Your task to perform on an android device: Go to ESPN.com Image 0: 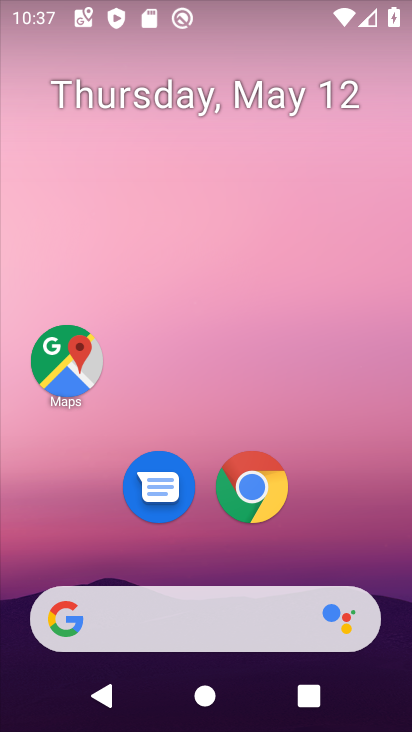
Step 0: click (258, 484)
Your task to perform on an android device: Go to ESPN.com Image 1: 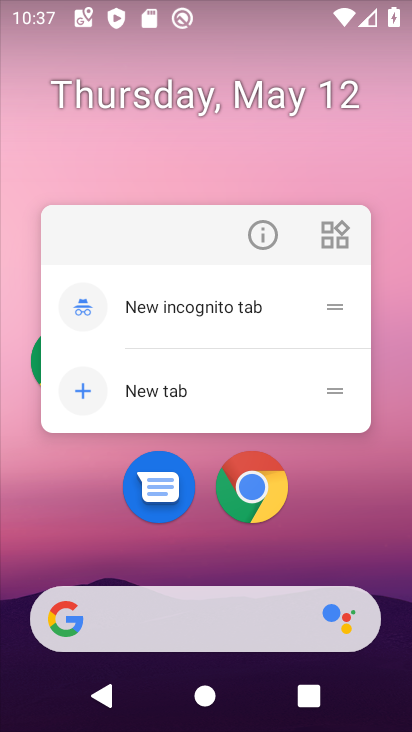
Step 1: click (254, 481)
Your task to perform on an android device: Go to ESPN.com Image 2: 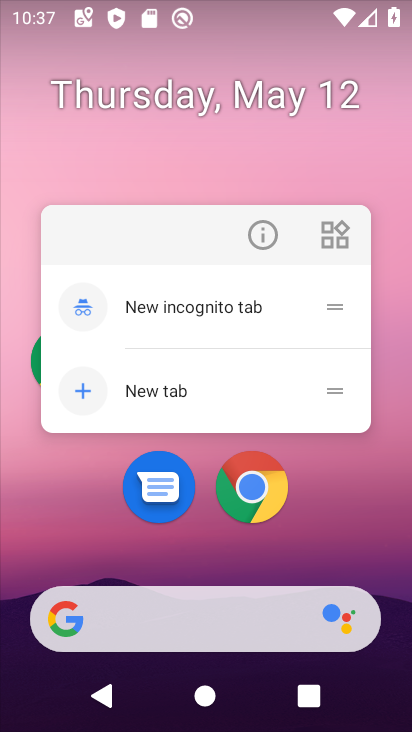
Step 2: click (253, 480)
Your task to perform on an android device: Go to ESPN.com Image 3: 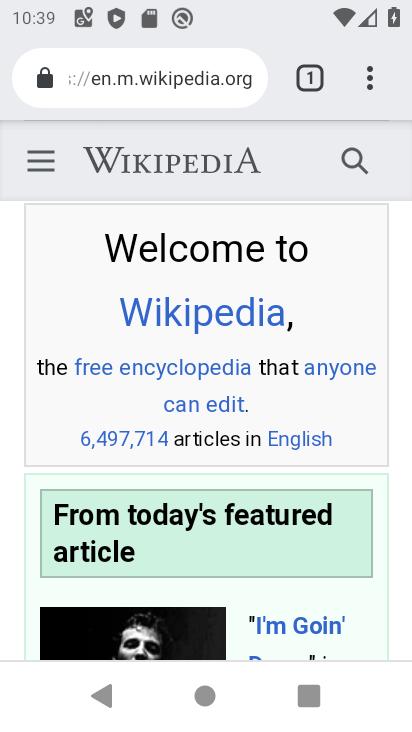
Step 3: click (294, 76)
Your task to perform on an android device: Go to ESPN.com Image 4: 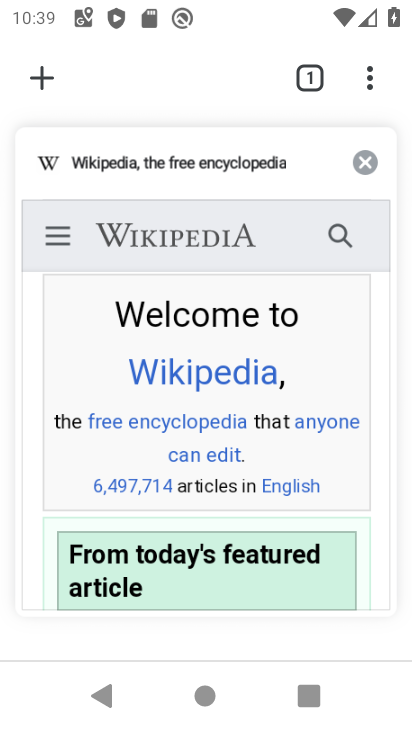
Step 4: click (31, 70)
Your task to perform on an android device: Go to ESPN.com Image 5: 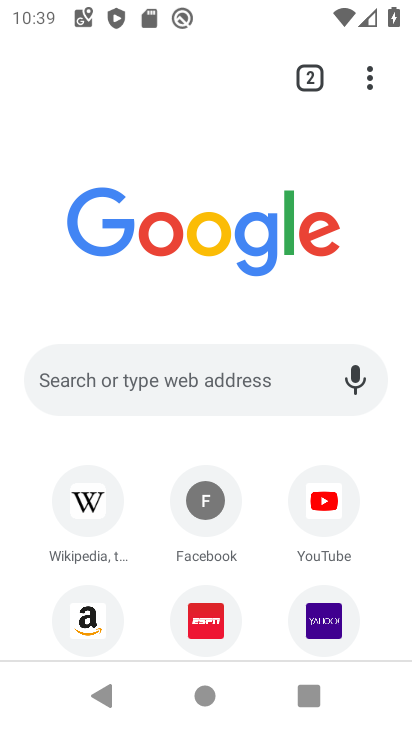
Step 5: drag from (63, 607) to (310, 194)
Your task to perform on an android device: Go to ESPN.com Image 6: 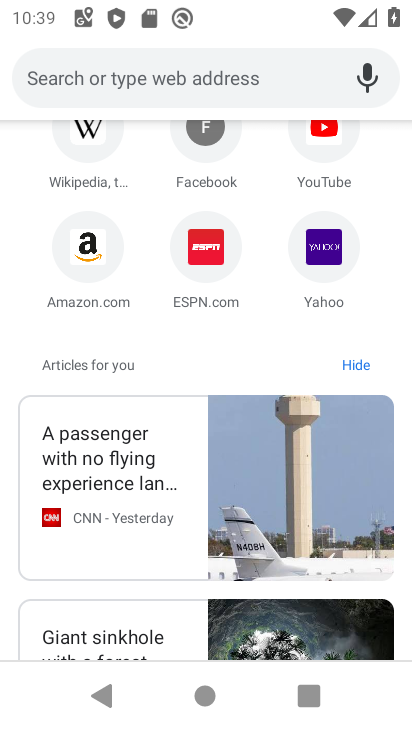
Step 6: click (221, 74)
Your task to perform on an android device: Go to ESPN.com Image 7: 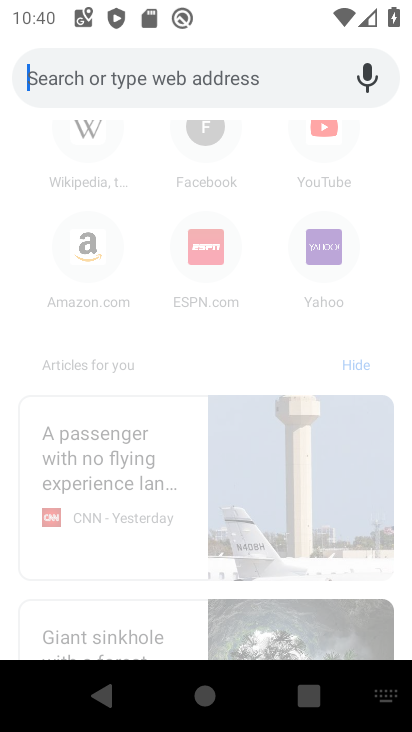
Step 7: type " ESPN.com"
Your task to perform on an android device: Go to ESPN.com Image 8: 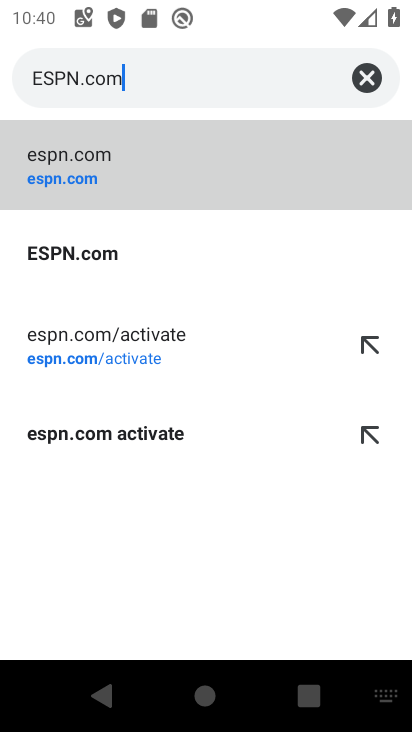
Step 8: click (62, 232)
Your task to perform on an android device: Go to ESPN.com Image 9: 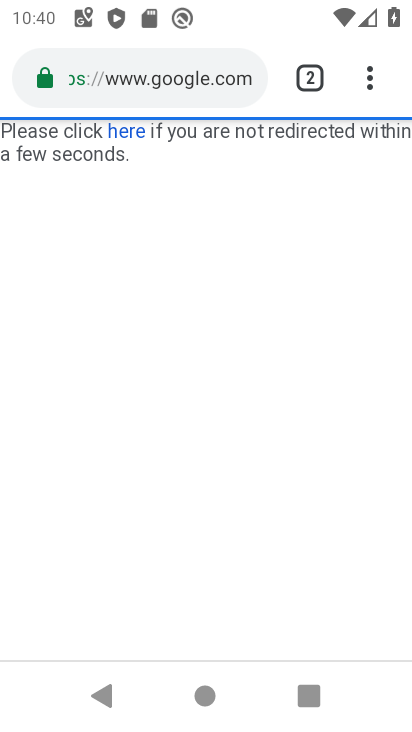
Step 9: task complete